Your task to perform on an android device: change the clock display to analog Image 0: 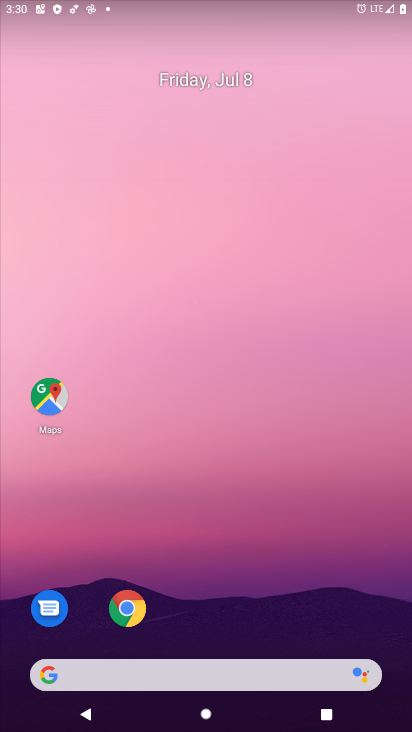
Step 0: drag from (289, 651) to (296, 7)
Your task to perform on an android device: change the clock display to analog Image 1: 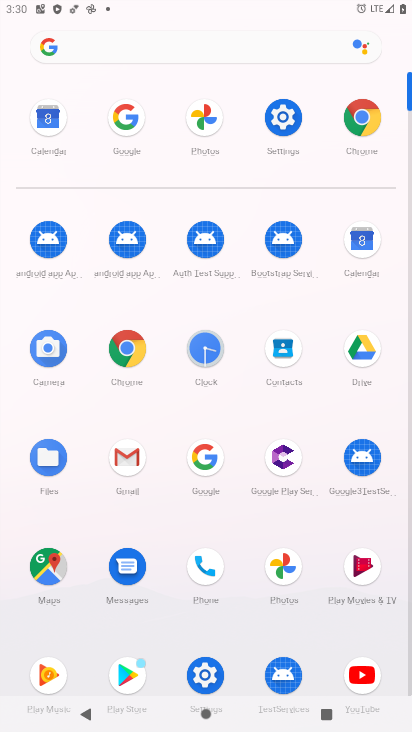
Step 1: click (294, 119)
Your task to perform on an android device: change the clock display to analog Image 2: 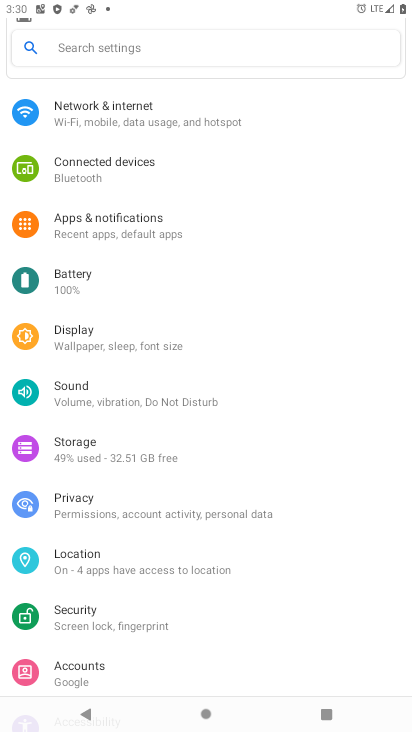
Step 2: press home button
Your task to perform on an android device: change the clock display to analog Image 3: 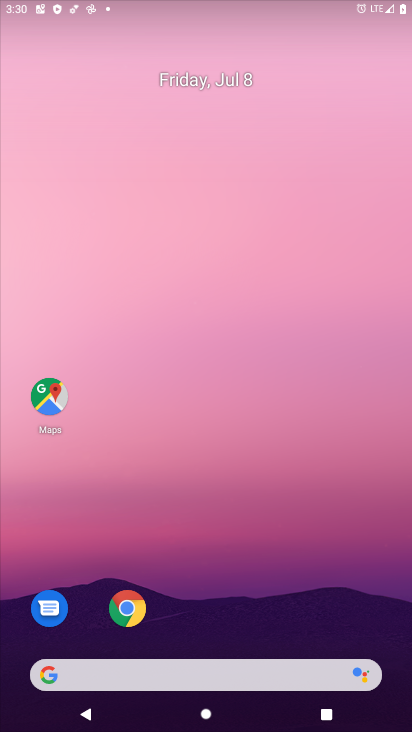
Step 3: drag from (287, 565) to (345, 28)
Your task to perform on an android device: change the clock display to analog Image 4: 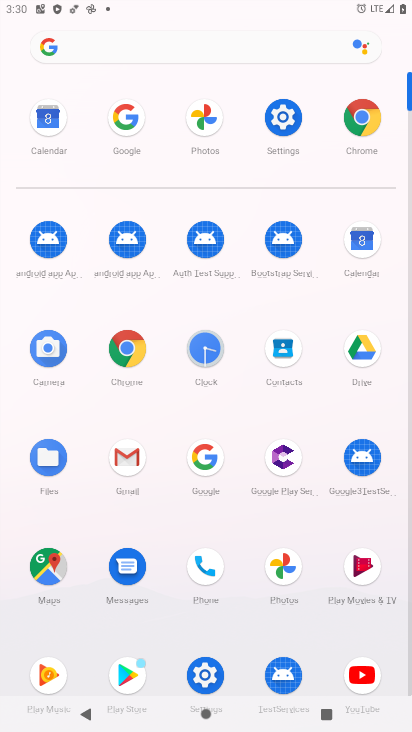
Step 4: click (198, 351)
Your task to perform on an android device: change the clock display to analog Image 5: 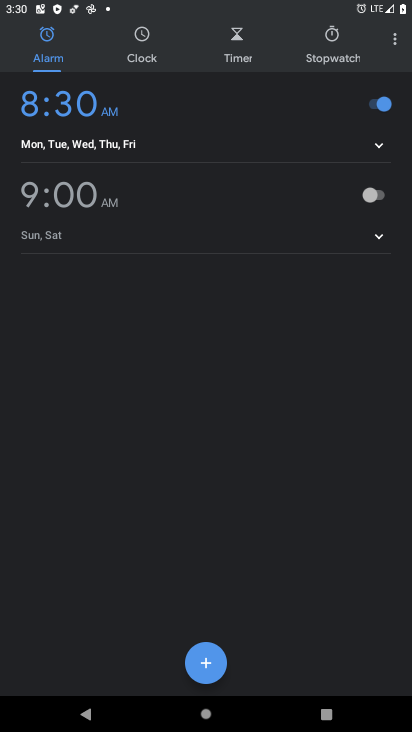
Step 5: click (395, 37)
Your task to perform on an android device: change the clock display to analog Image 6: 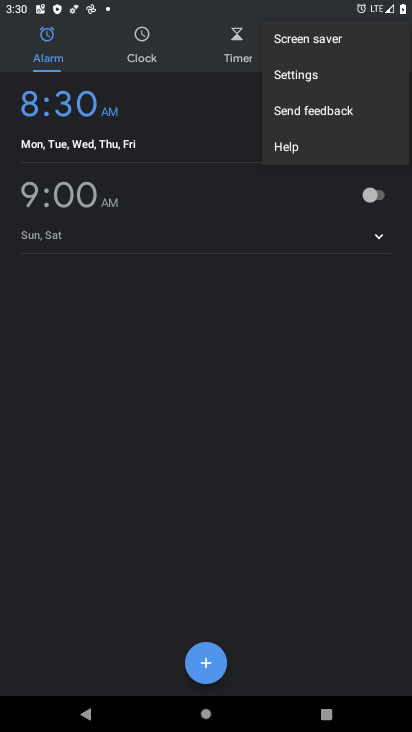
Step 6: click (344, 78)
Your task to perform on an android device: change the clock display to analog Image 7: 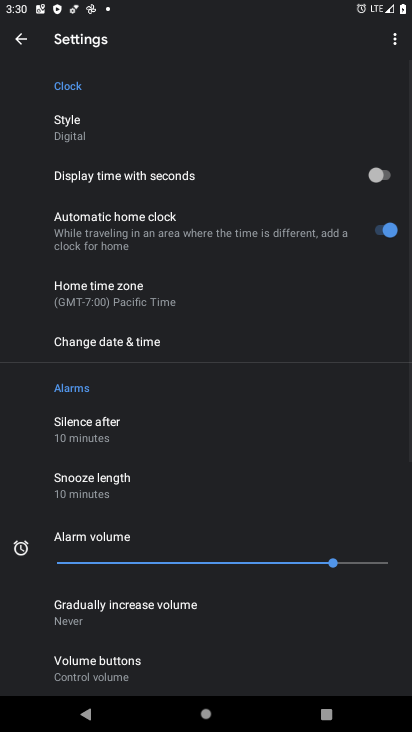
Step 7: click (84, 118)
Your task to perform on an android device: change the clock display to analog Image 8: 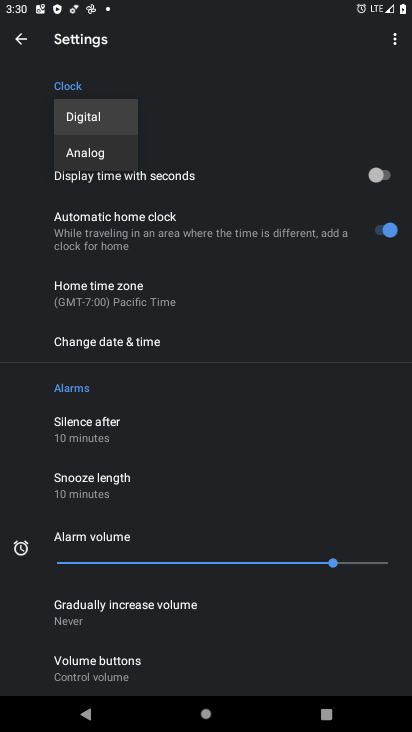
Step 8: click (109, 153)
Your task to perform on an android device: change the clock display to analog Image 9: 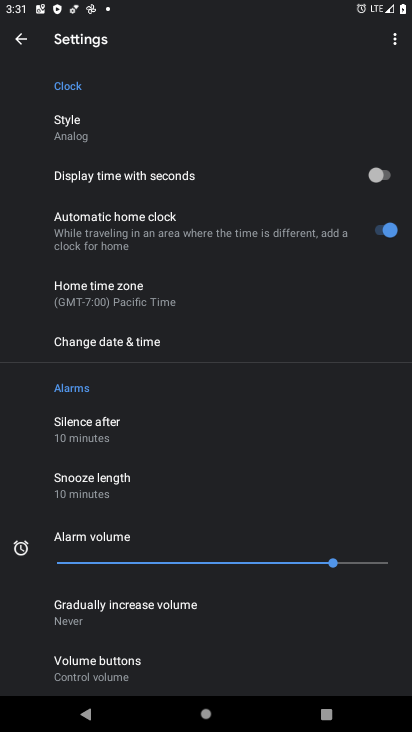
Step 9: task complete